Your task to perform on an android device: Is it going to rain this weekend? Image 0: 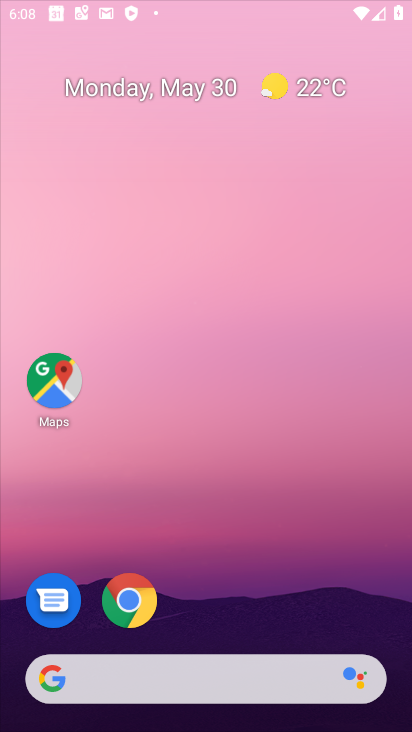
Step 0: press home button
Your task to perform on an android device: Is it going to rain this weekend? Image 1: 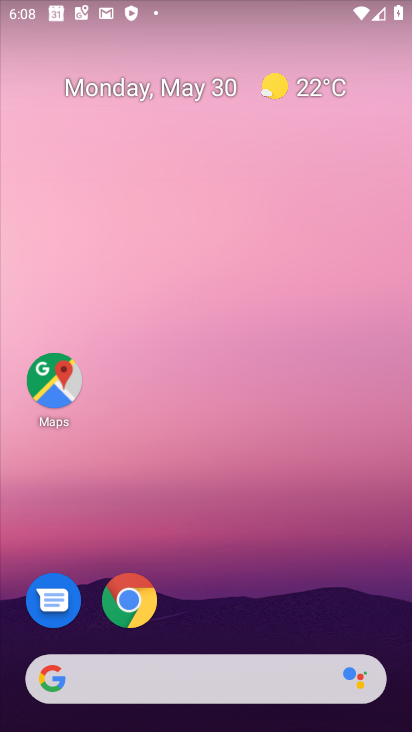
Step 1: click (52, 682)
Your task to perform on an android device: Is it going to rain this weekend? Image 2: 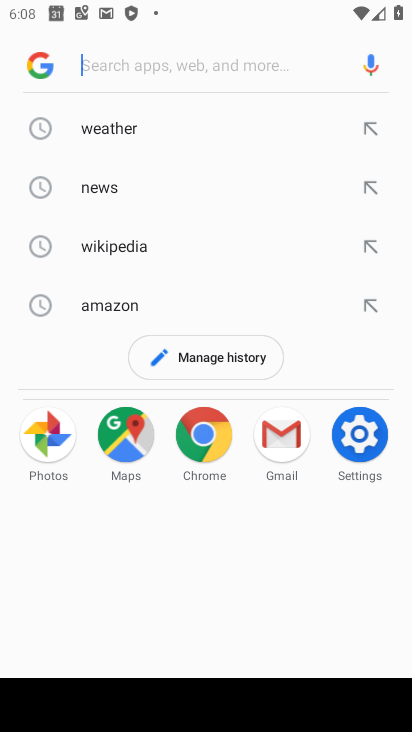
Step 2: type "rain this weekend"
Your task to perform on an android device: Is it going to rain this weekend? Image 3: 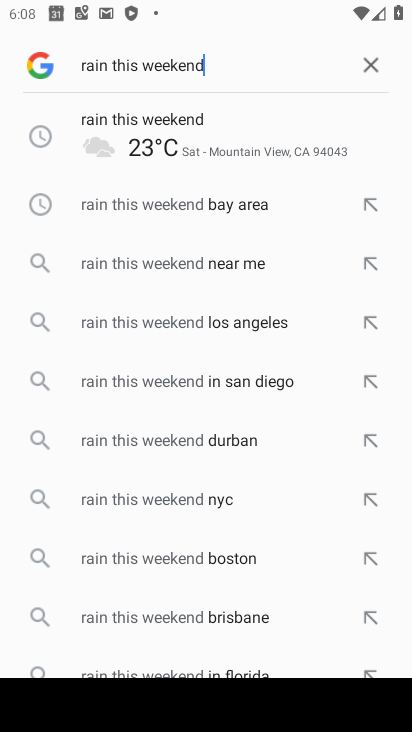
Step 3: click (152, 118)
Your task to perform on an android device: Is it going to rain this weekend? Image 4: 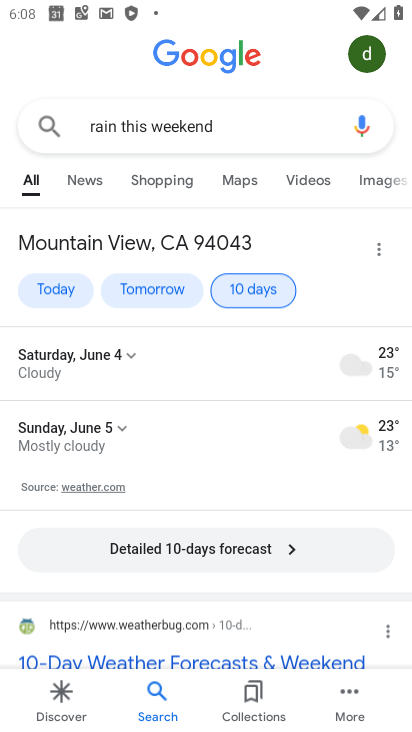
Step 4: task complete